Your task to perform on an android device: Open Yahoo.com Image 0: 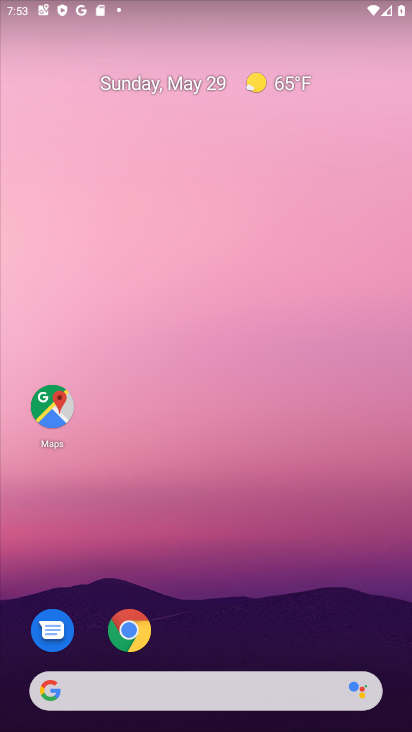
Step 0: click (135, 630)
Your task to perform on an android device: Open Yahoo.com Image 1: 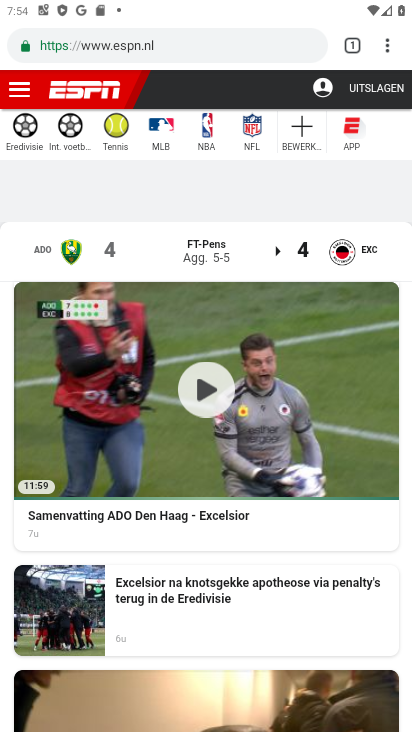
Step 1: click (389, 56)
Your task to perform on an android device: Open Yahoo.com Image 2: 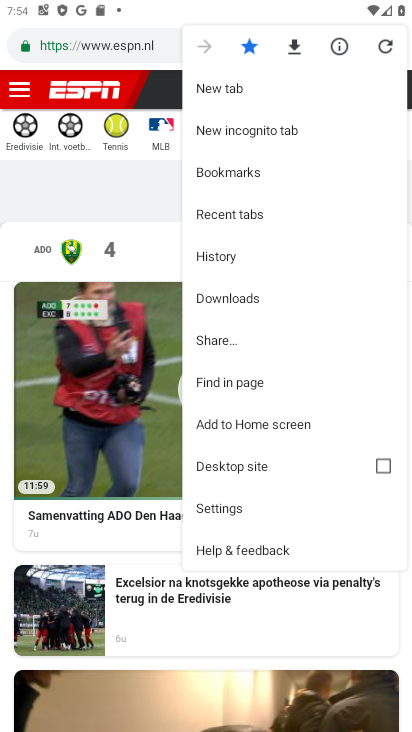
Step 2: click (203, 91)
Your task to perform on an android device: Open Yahoo.com Image 3: 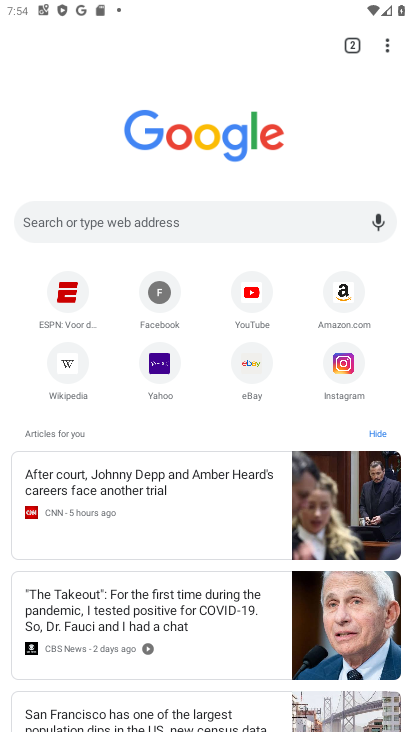
Step 3: click (156, 371)
Your task to perform on an android device: Open Yahoo.com Image 4: 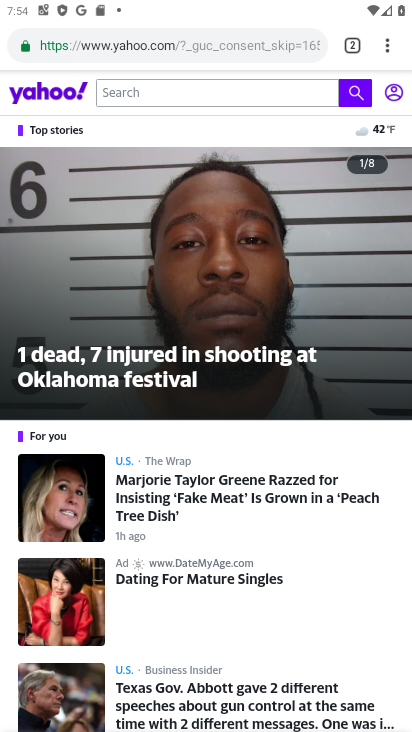
Step 4: task complete